Your task to perform on an android device: set default search engine in the chrome app Image 0: 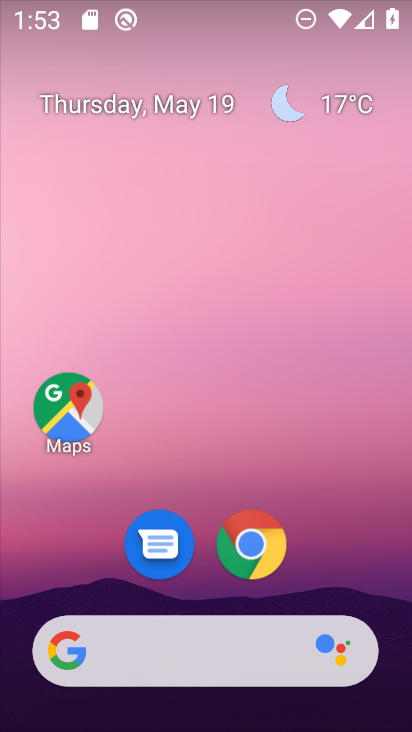
Step 0: click (242, 544)
Your task to perform on an android device: set default search engine in the chrome app Image 1: 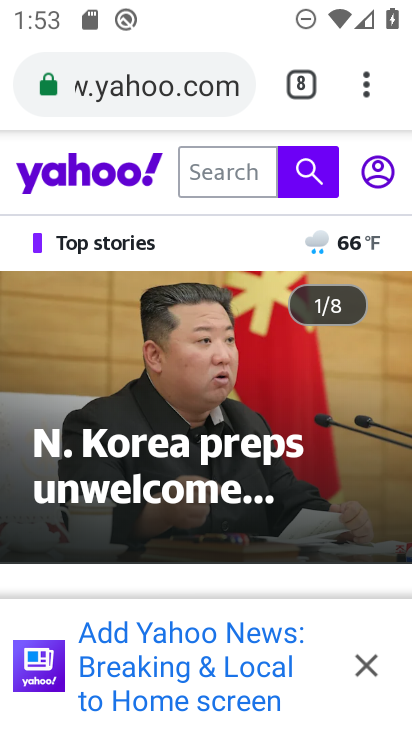
Step 1: click (366, 94)
Your task to perform on an android device: set default search engine in the chrome app Image 2: 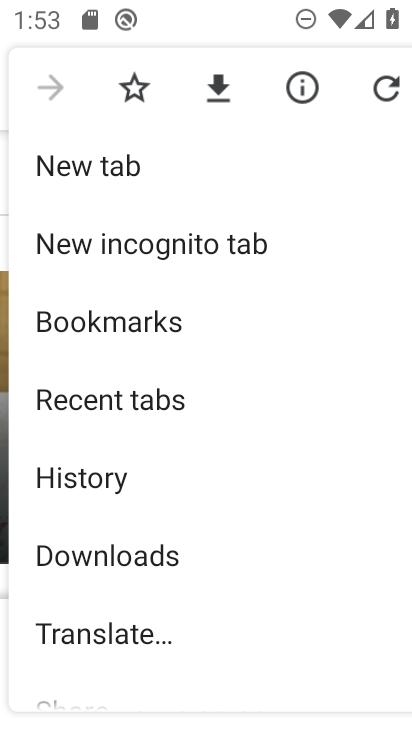
Step 2: drag from (178, 630) to (177, 249)
Your task to perform on an android device: set default search engine in the chrome app Image 3: 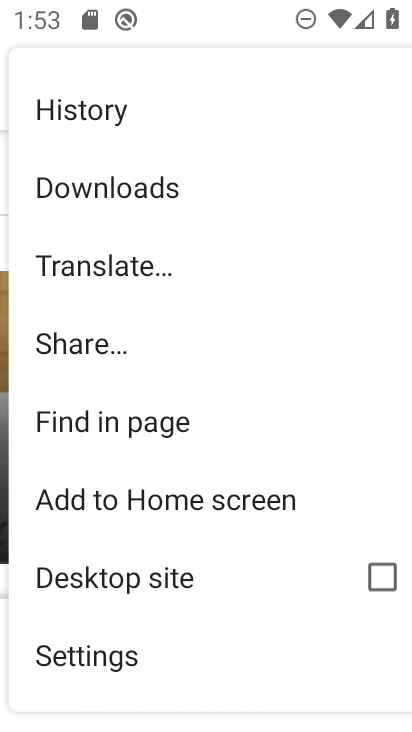
Step 3: drag from (131, 620) to (150, 380)
Your task to perform on an android device: set default search engine in the chrome app Image 4: 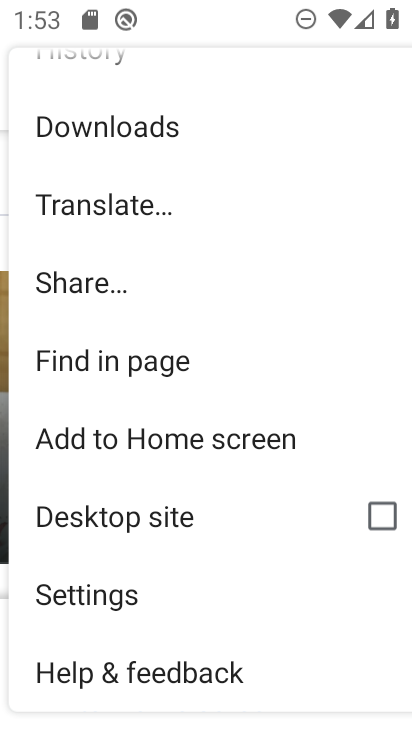
Step 4: click (89, 582)
Your task to perform on an android device: set default search engine in the chrome app Image 5: 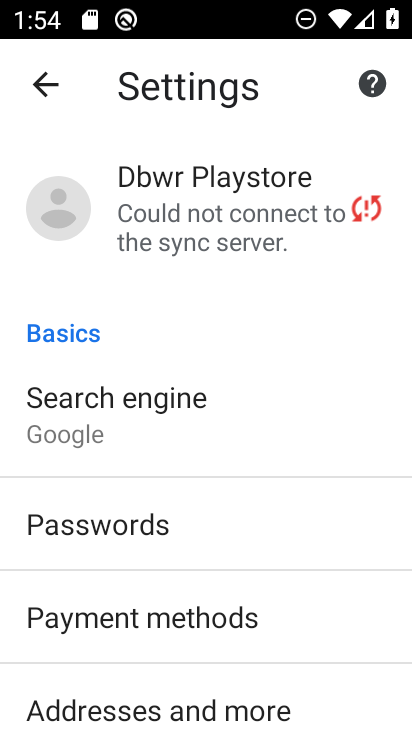
Step 5: click (102, 404)
Your task to perform on an android device: set default search engine in the chrome app Image 6: 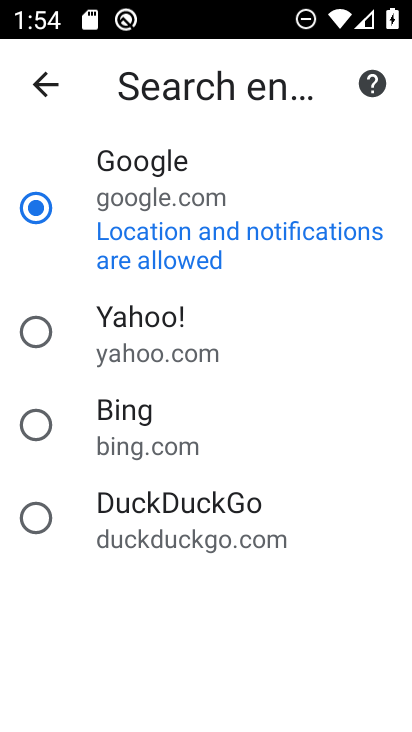
Step 6: click (37, 323)
Your task to perform on an android device: set default search engine in the chrome app Image 7: 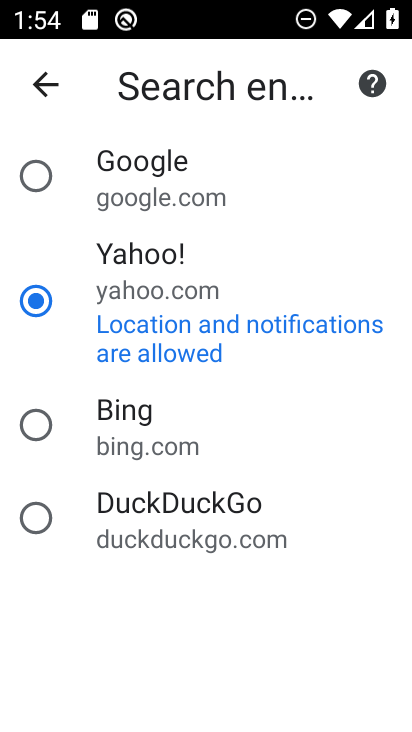
Step 7: task complete